Your task to perform on an android device: Do I have any events today? Image 0: 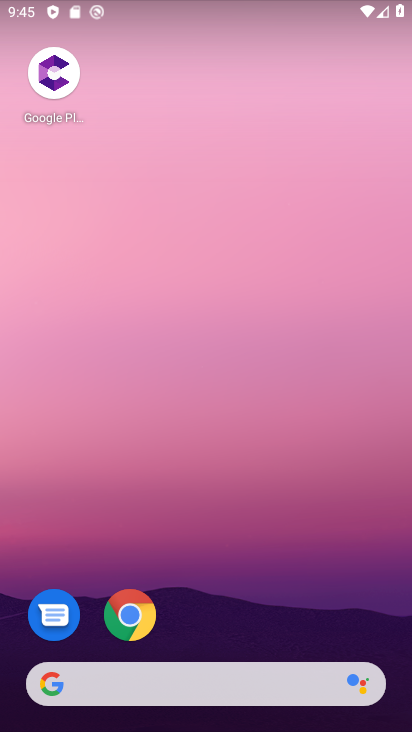
Step 0: drag from (326, 613) to (343, 98)
Your task to perform on an android device: Do I have any events today? Image 1: 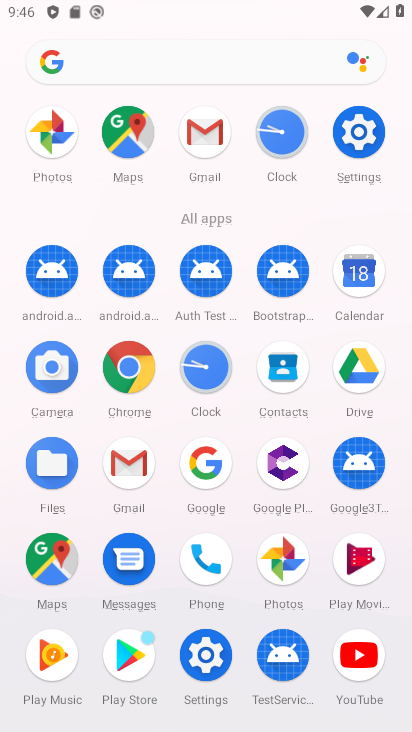
Step 1: click (360, 276)
Your task to perform on an android device: Do I have any events today? Image 2: 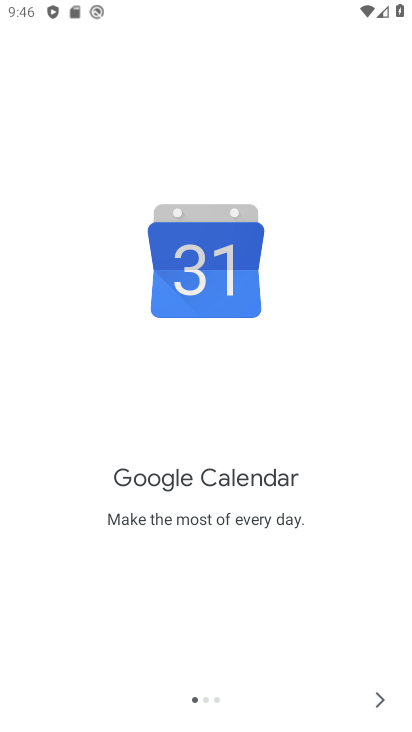
Step 2: click (378, 697)
Your task to perform on an android device: Do I have any events today? Image 3: 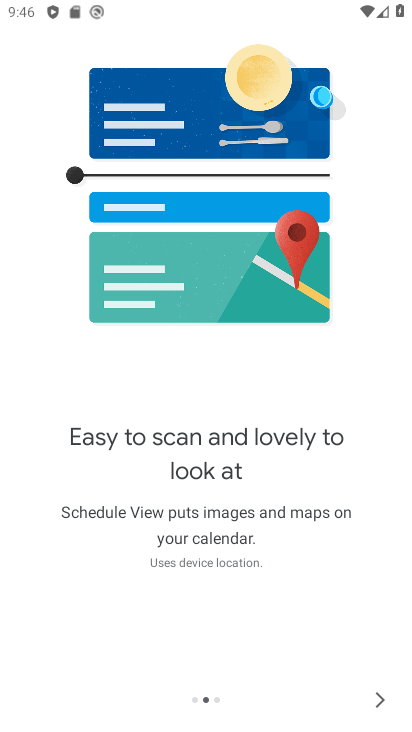
Step 3: click (378, 697)
Your task to perform on an android device: Do I have any events today? Image 4: 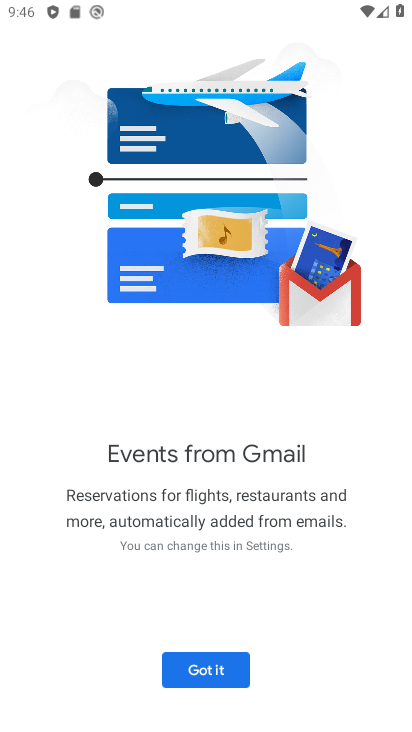
Step 4: click (229, 673)
Your task to perform on an android device: Do I have any events today? Image 5: 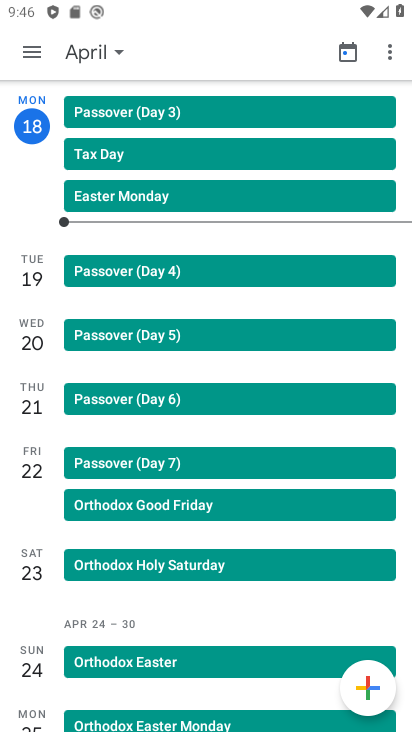
Step 5: click (118, 54)
Your task to perform on an android device: Do I have any events today? Image 6: 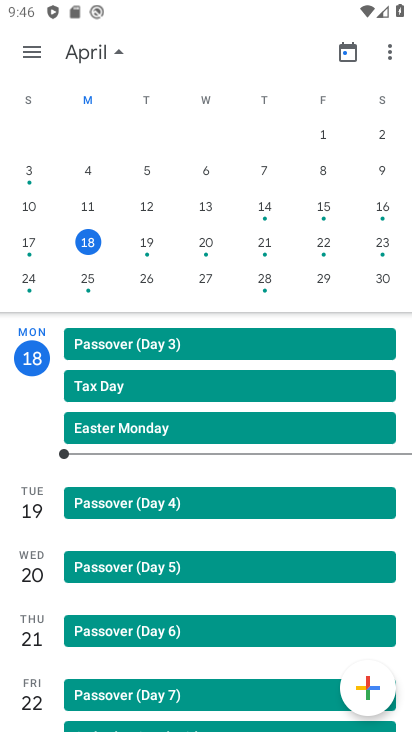
Step 6: click (27, 58)
Your task to perform on an android device: Do I have any events today? Image 7: 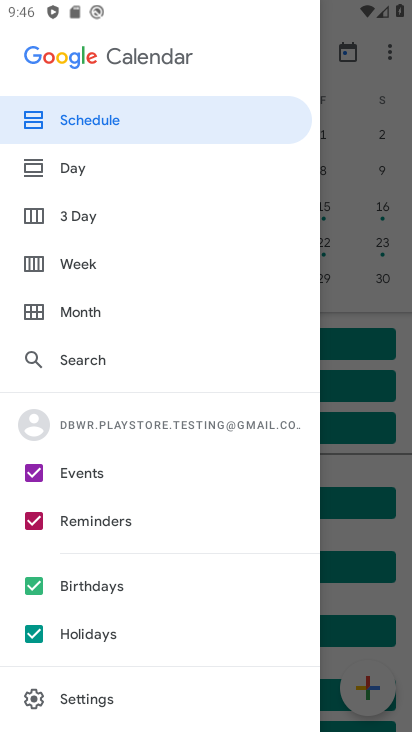
Step 7: click (36, 523)
Your task to perform on an android device: Do I have any events today? Image 8: 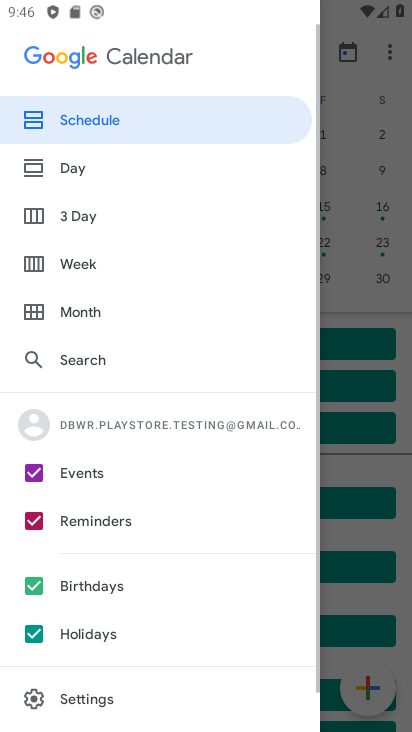
Step 8: click (99, 121)
Your task to perform on an android device: Do I have any events today? Image 9: 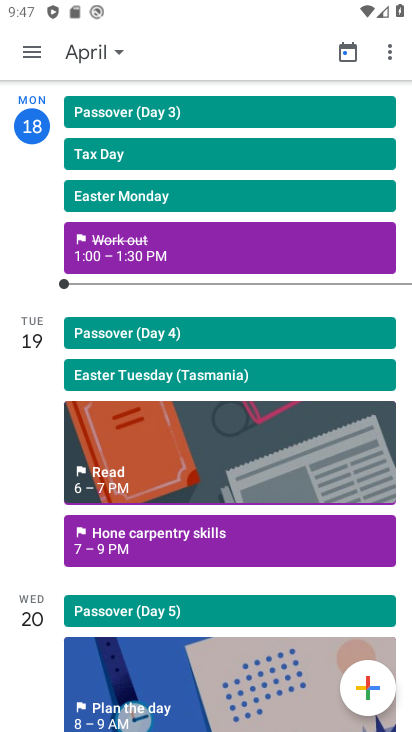
Step 9: click (192, 258)
Your task to perform on an android device: Do I have any events today? Image 10: 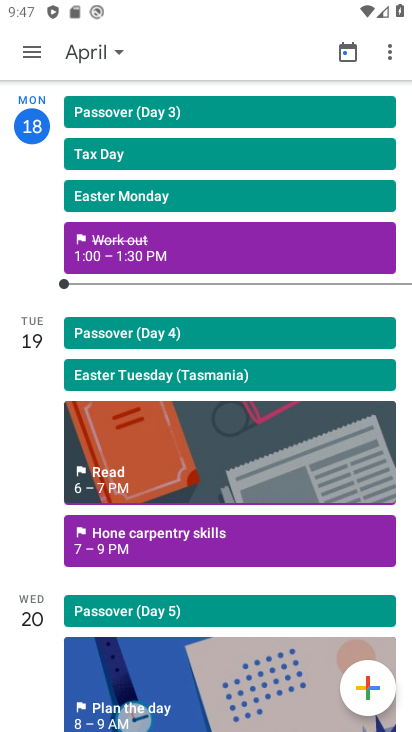
Step 10: click (115, 250)
Your task to perform on an android device: Do I have any events today? Image 11: 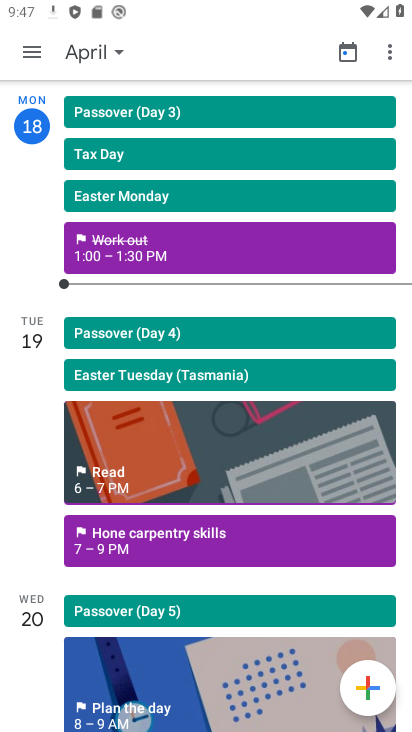
Step 11: click (133, 241)
Your task to perform on an android device: Do I have any events today? Image 12: 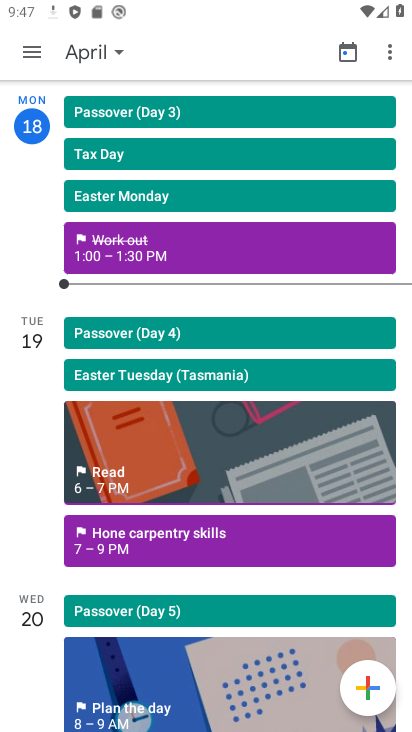
Step 12: click (83, 245)
Your task to perform on an android device: Do I have any events today? Image 13: 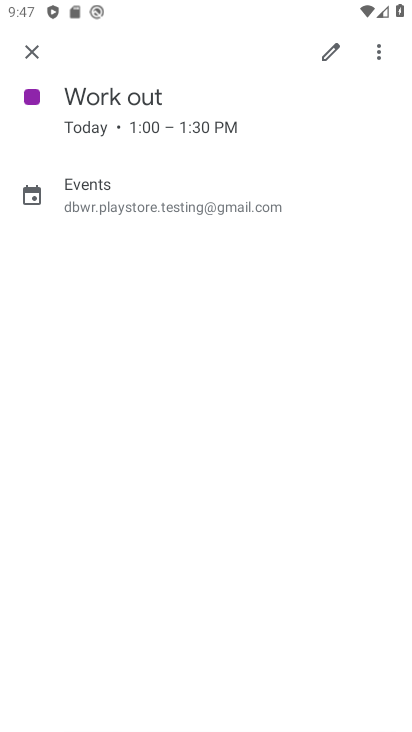
Step 13: task complete